Your task to perform on an android device: set an alarm Image 0: 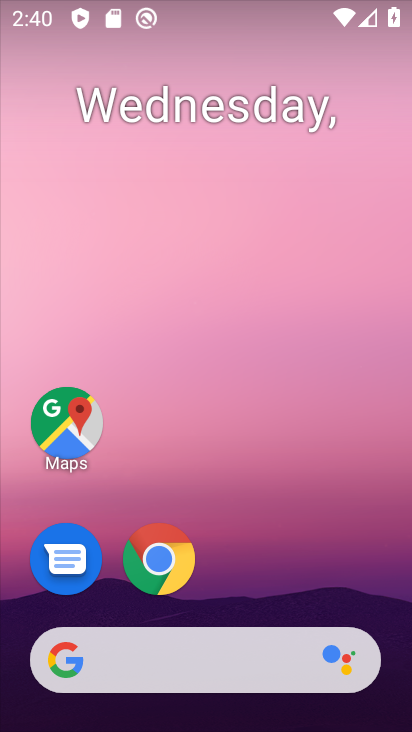
Step 0: drag from (223, 615) to (310, 5)
Your task to perform on an android device: set an alarm Image 1: 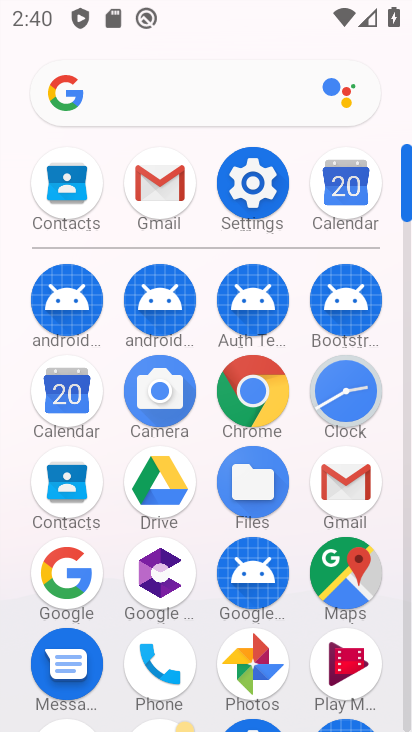
Step 1: click (171, 172)
Your task to perform on an android device: set an alarm Image 2: 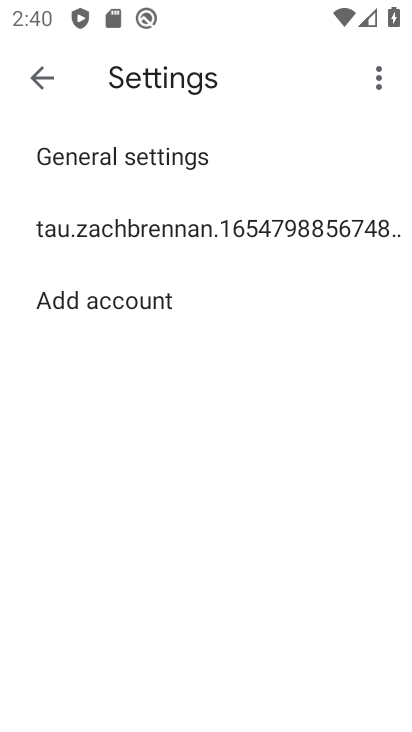
Step 2: click (41, 68)
Your task to perform on an android device: set an alarm Image 3: 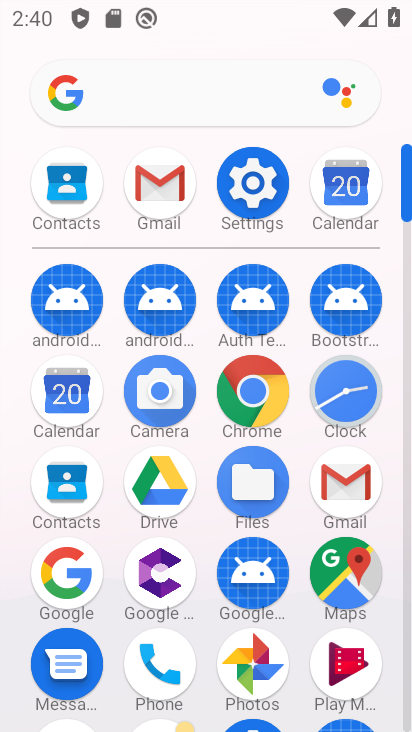
Step 3: click (140, 186)
Your task to perform on an android device: set an alarm Image 4: 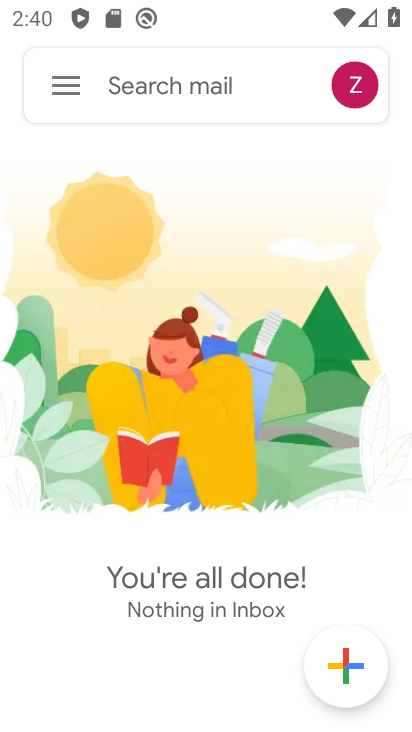
Step 4: press back button
Your task to perform on an android device: set an alarm Image 5: 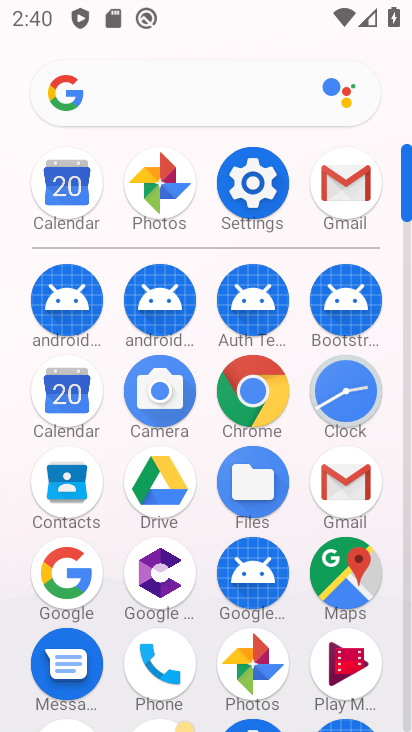
Step 5: click (353, 386)
Your task to perform on an android device: set an alarm Image 6: 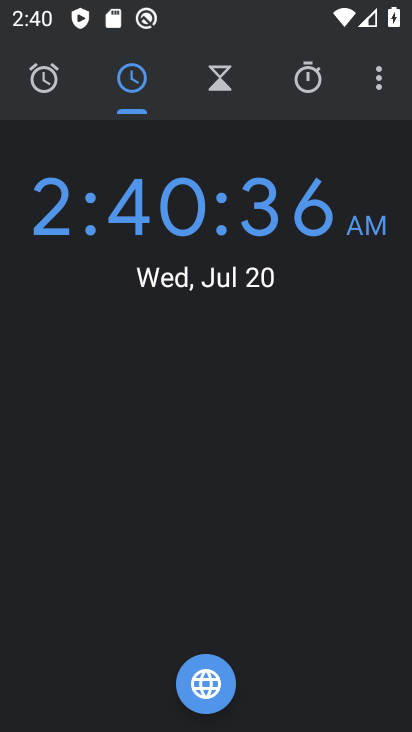
Step 6: click (36, 78)
Your task to perform on an android device: set an alarm Image 7: 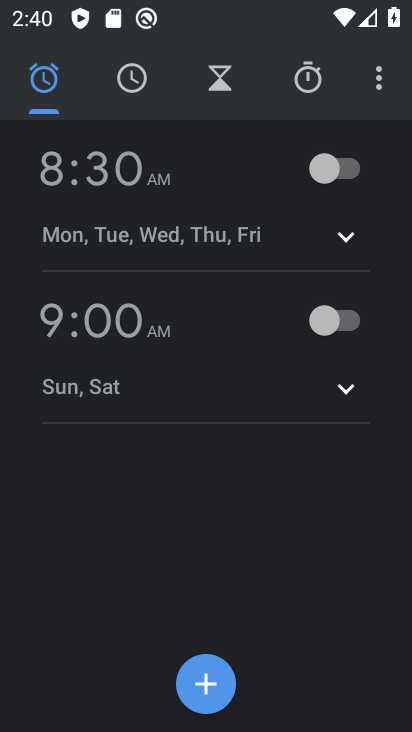
Step 7: click (332, 171)
Your task to perform on an android device: set an alarm Image 8: 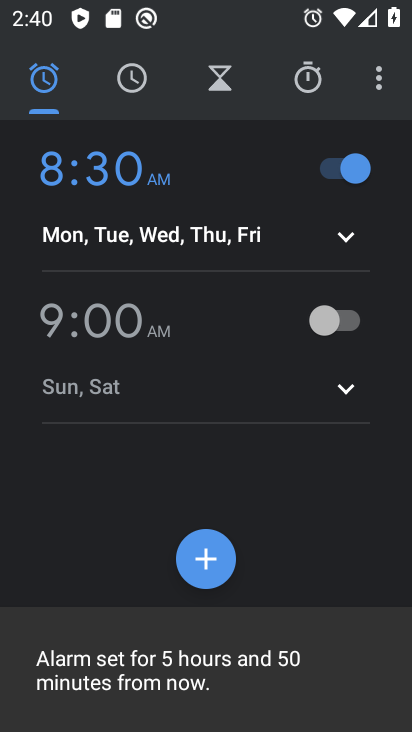
Step 8: task complete